Your task to perform on an android device: turn on location history Image 0: 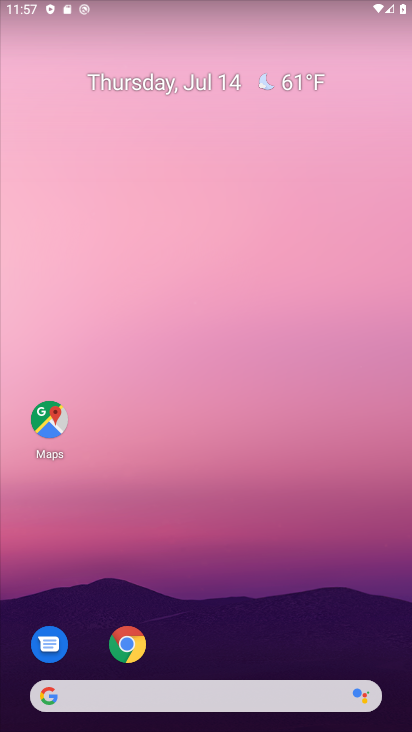
Step 0: drag from (207, 663) to (195, 242)
Your task to perform on an android device: turn on location history Image 1: 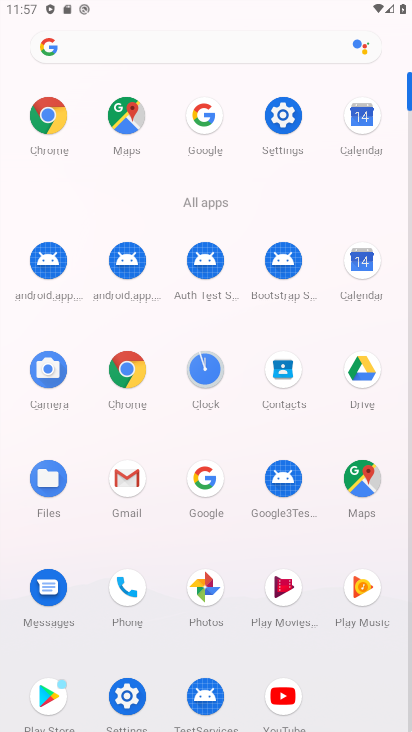
Step 1: click (125, 684)
Your task to perform on an android device: turn on location history Image 2: 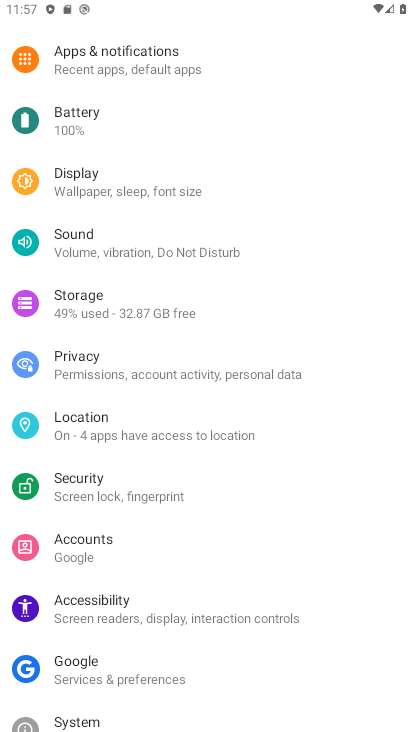
Step 2: click (82, 437)
Your task to perform on an android device: turn on location history Image 3: 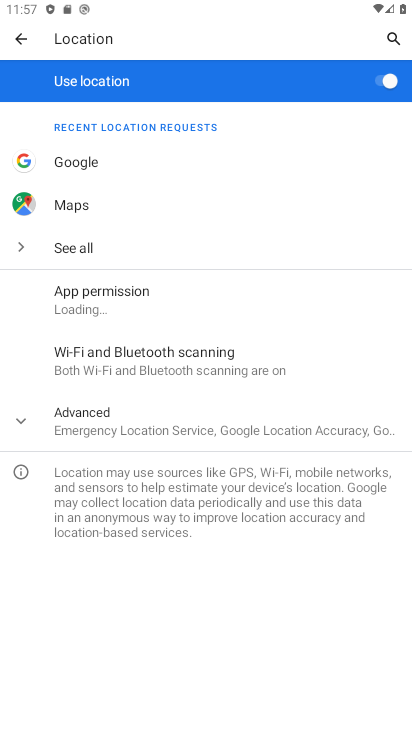
Step 3: click (64, 430)
Your task to perform on an android device: turn on location history Image 4: 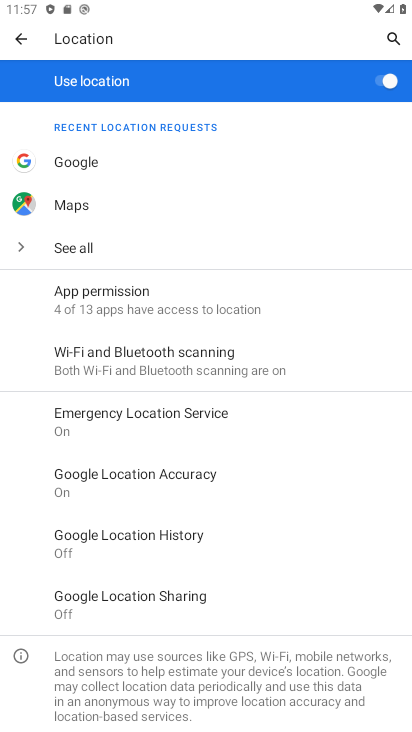
Step 4: click (135, 521)
Your task to perform on an android device: turn on location history Image 5: 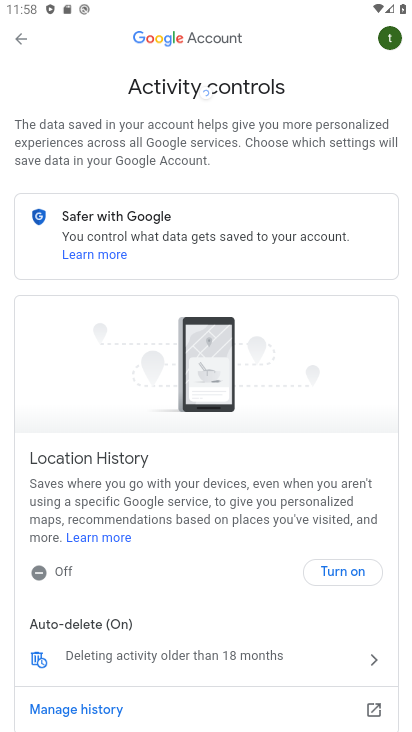
Step 5: click (351, 573)
Your task to perform on an android device: turn on location history Image 6: 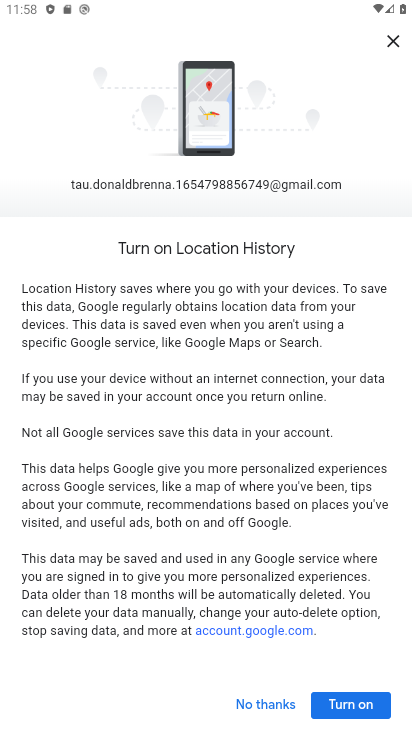
Step 6: click (369, 700)
Your task to perform on an android device: turn on location history Image 7: 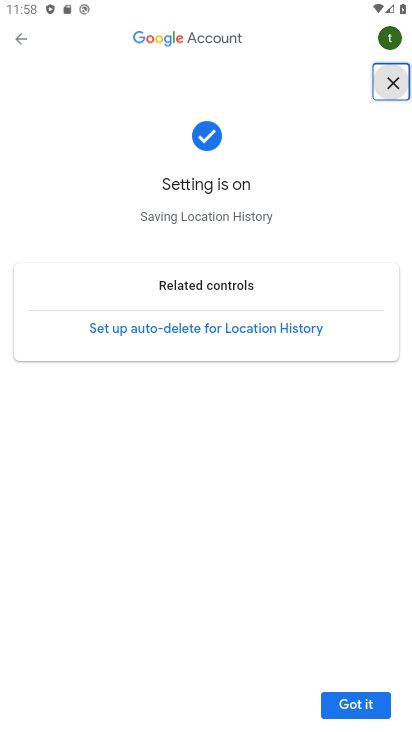
Step 7: click (355, 690)
Your task to perform on an android device: turn on location history Image 8: 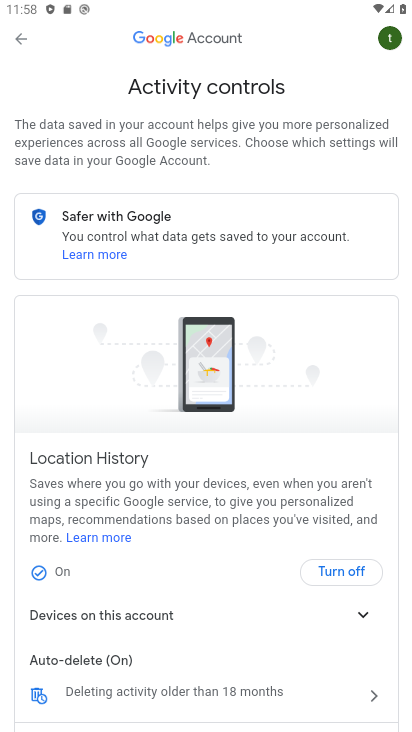
Step 8: task complete